Your task to perform on an android device: Search for vegetarian restaurants on Maps Image 0: 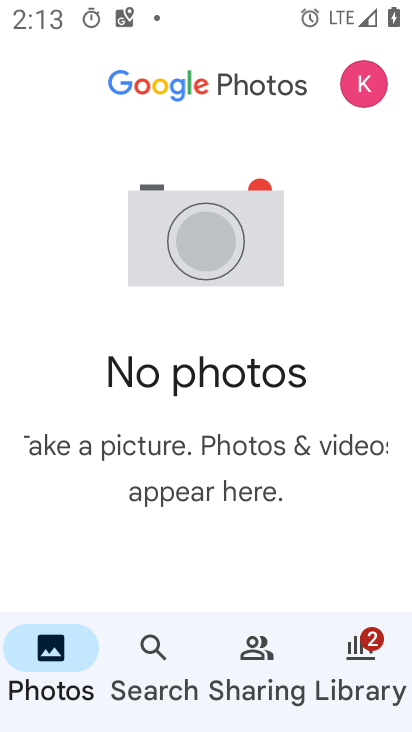
Step 0: press home button
Your task to perform on an android device: Search for vegetarian restaurants on Maps Image 1: 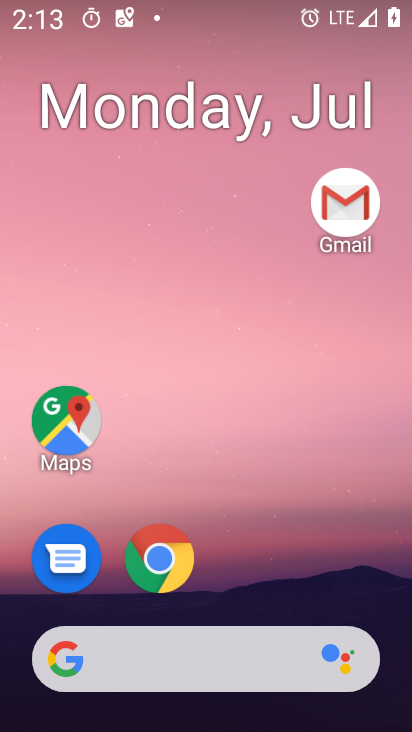
Step 1: drag from (334, 480) to (334, 90)
Your task to perform on an android device: Search for vegetarian restaurants on Maps Image 2: 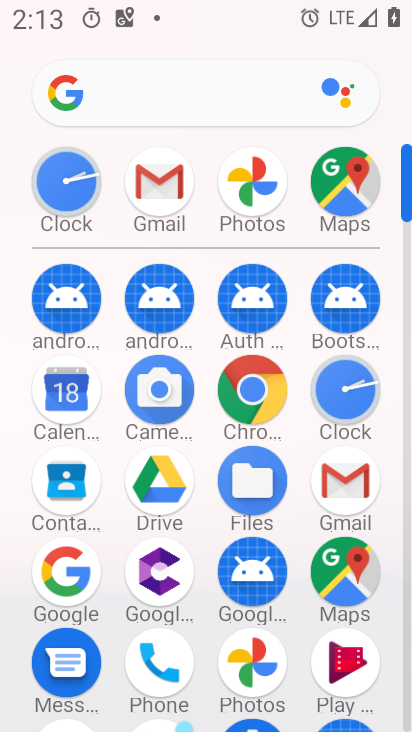
Step 2: click (350, 581)
Your task to perform on an android device: Search for vegetarian restaurants on Maps Image 3: 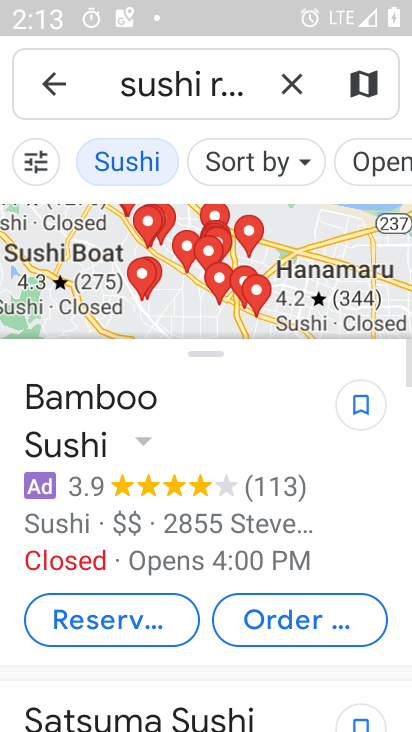
Step 3: press back button
Your task to perform on an android device: Search for vegetarian restaurants on Maps Image 4: 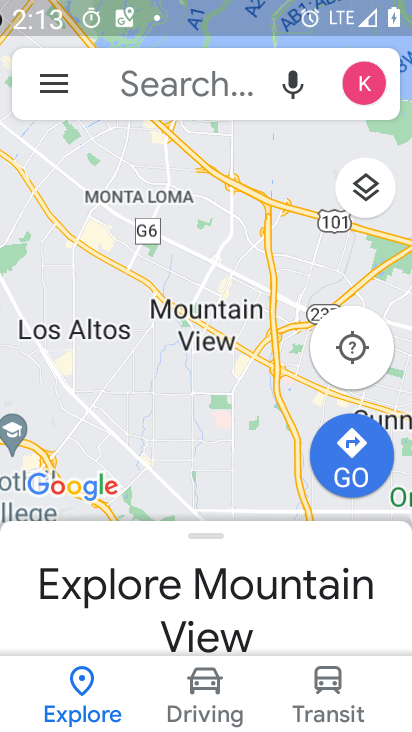
Step 4: click (200, 83)
Your task to perform on an android device: Search for vegetarian restaurants on Maps Image 5: 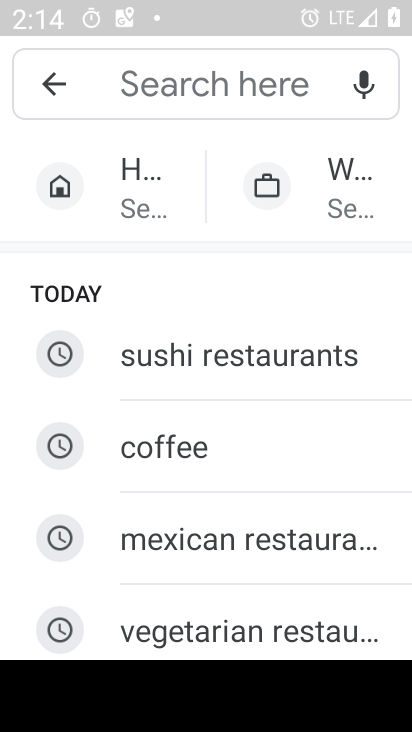
Step 5: type "vegetrain restaurants"
Your task to perform on an android device: Search for vegetarian restaurants on Maps Image 6: 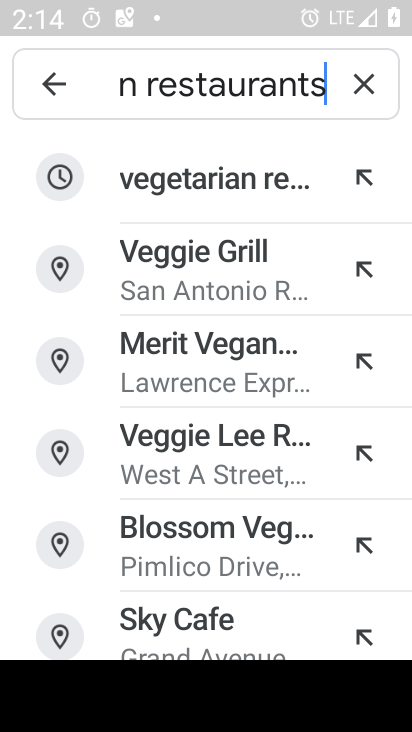
Step 6: click (271, 171)
Your task to perform on an android device: Search for vegetarian restaurants on Maps Image 7: 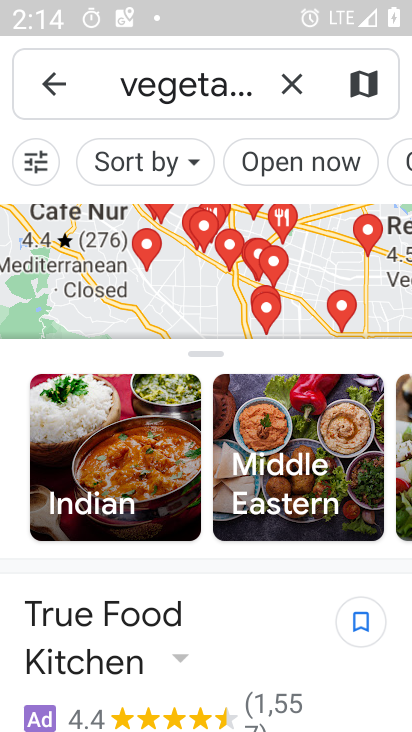
Step 7: task complete